Your task to perform on an android device: move an email to a new category in the gmail app Image 0: 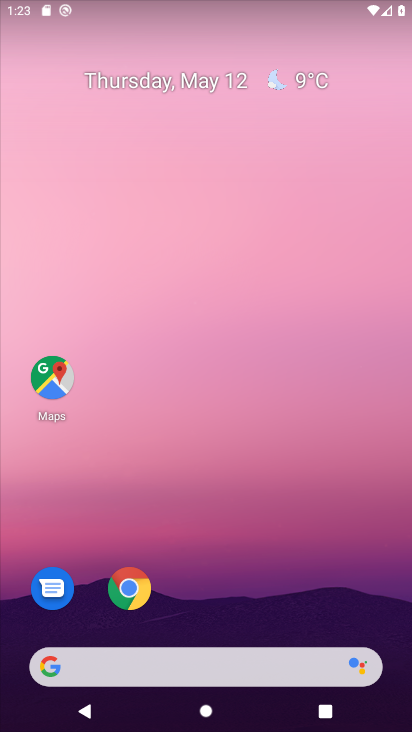
Step 0: drag from (310, 513) to (214, 78)
Your task to perform on an android device: move an email to a new category in the gmail app Image 1: 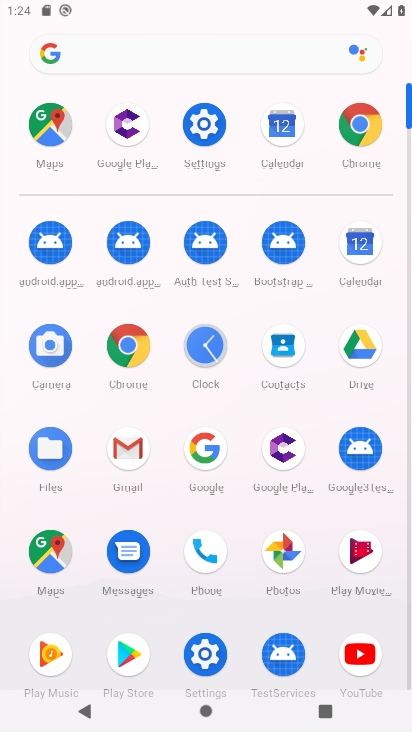
Step 1: click (143, 441)
Your task to perform on an android device: move an email to a new category in the gmail app Image 2: 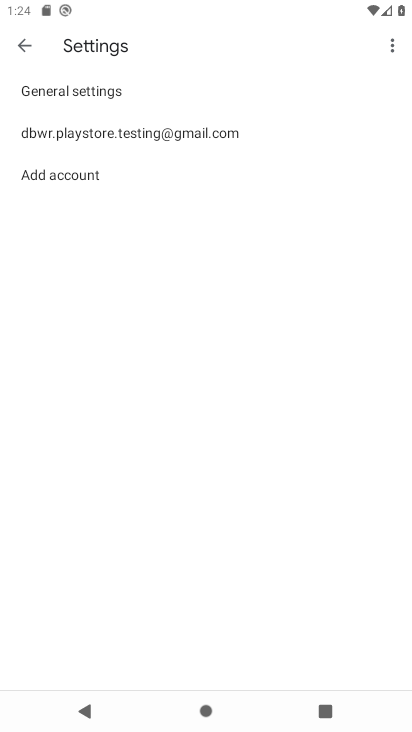
Step 2: click (33, 131)
Your task to perform on an android device: move an email to a new category in the gmail app Image 3: 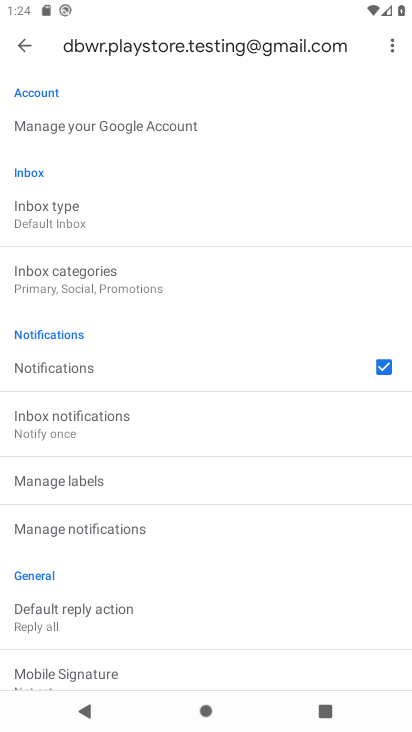
Step 3: click (66, 209)
Your task to perform on an android device: move an email to a new category in the gmail app Image 4: 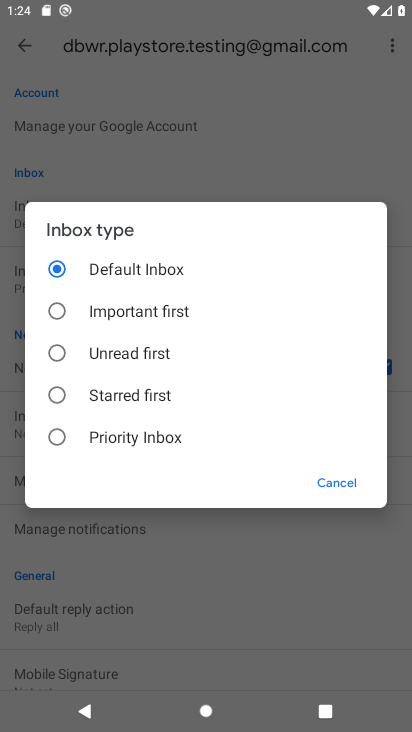
Step 4: click (101, 352)
Your task to perform on an android device: move an email to a new category in the gmail app Image 5: 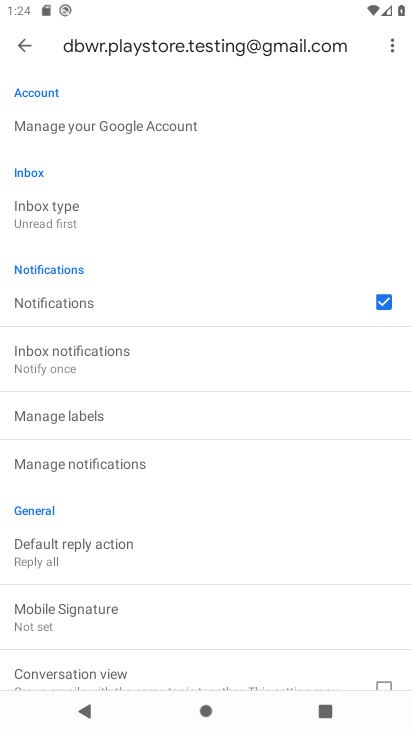
Step 5: task complete